Your task to perform on an android device: What's the weather today? Image 0: 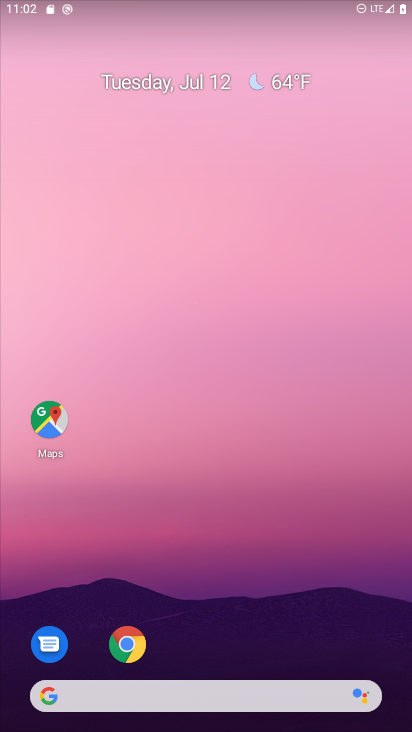
Step 0: drag from (273, 648) to (274, 100)
Your task to perform on an android device: What's the weather today? Image 1: 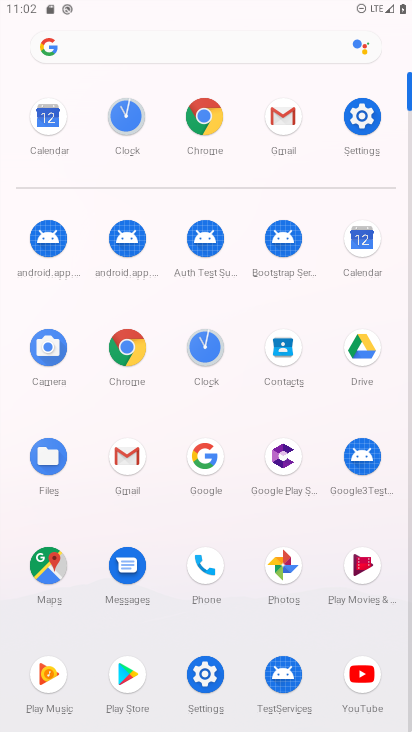
Step 1: click (238, 41)
Your task to perform on an android device: What's the weather today? Image 2: 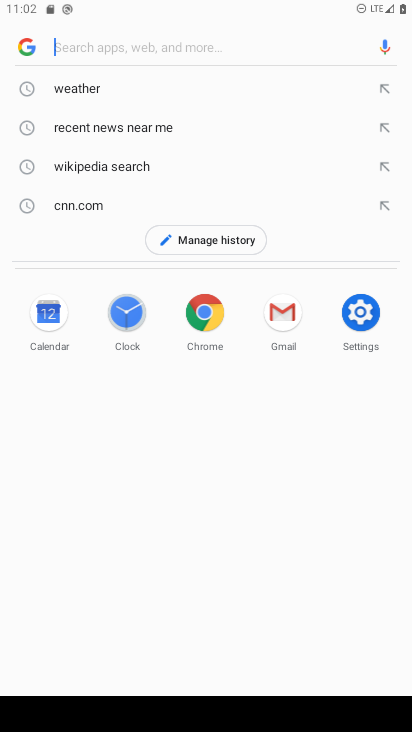
Step 2: click (44, 86)
Your task to perform on an android device: What's the weather today? Image 3: 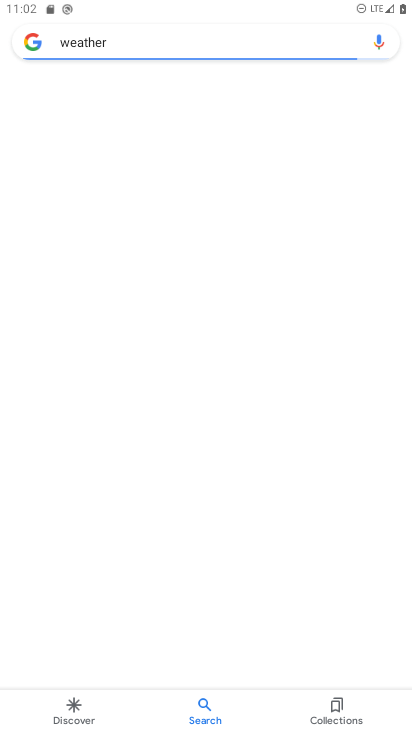
Step 3: task complete